Your task to perform on an android device: see tabs open on other devices in the chrome app Image 0: 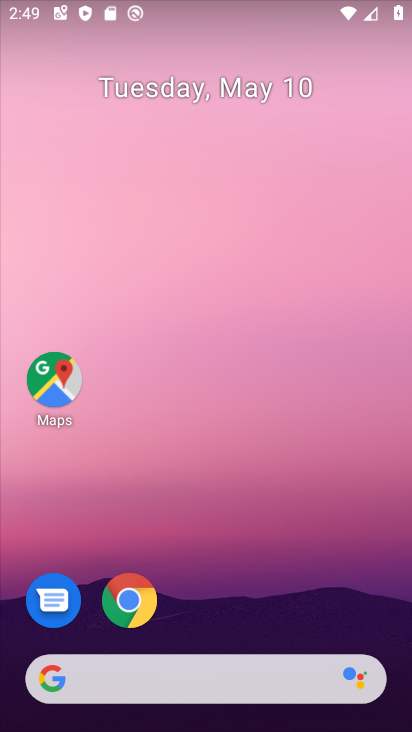
Step 0: drag from (246, 607) to (256, 95)
Your task to perform on an android device: see tabs open on other devices in the chrome app Image 1: 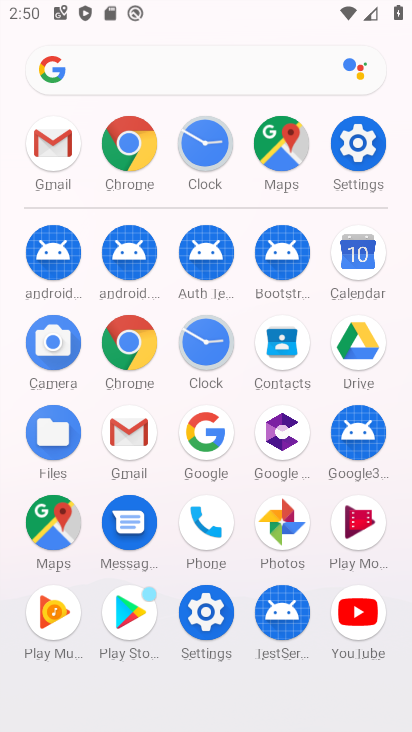
Step 1: click (131, 372)
Your task to perform on an android device: see tabs open on other devices in the chrome app Image 2: 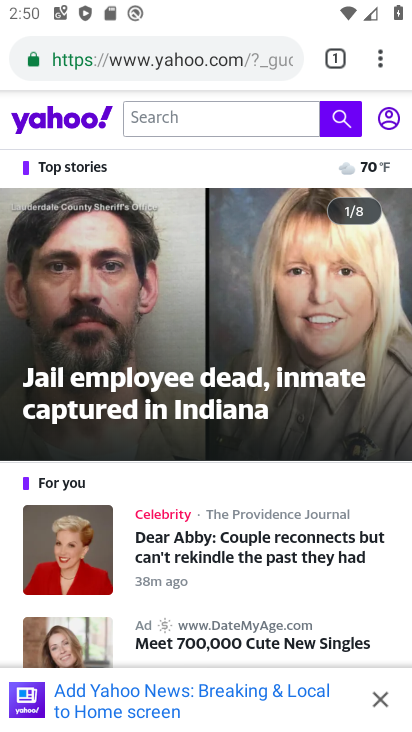
Step 2: task complete